Your task to perform on an android device: turn off sleep mode Image 0: 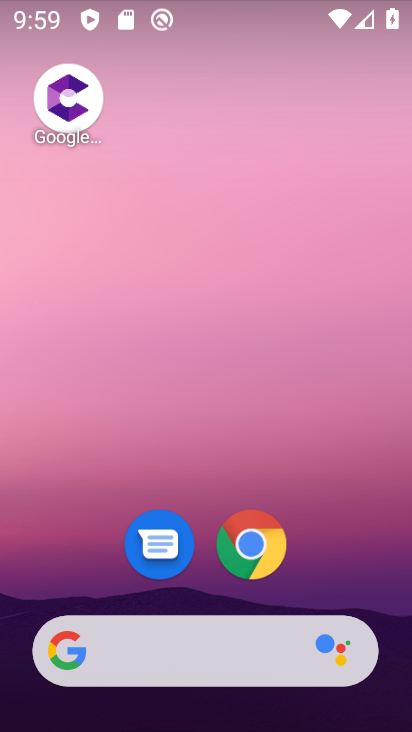
Step 0: press home button
Your task to perform on an android device: turn off sleep mode Image 1: 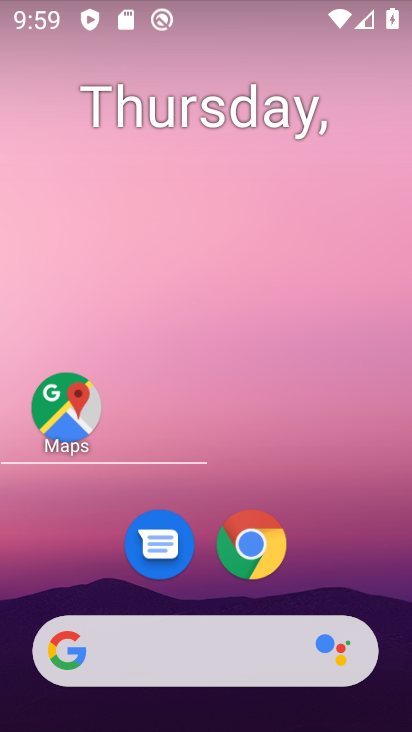
Step 1: drag from (213, 592) to (260, 109)
Your task to perform on an android device: turn off sleep mode Image 2: 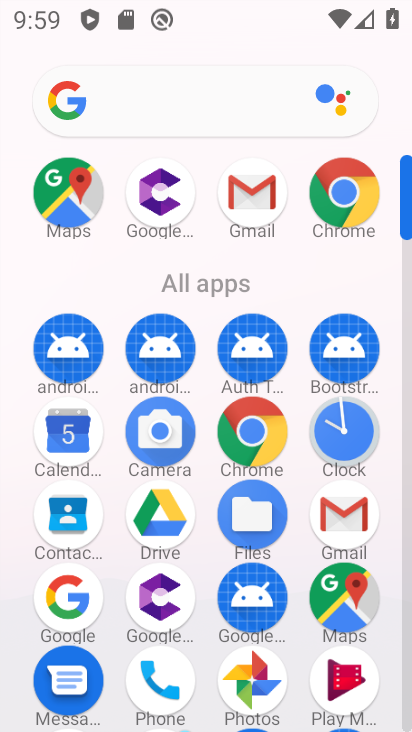
Step 2: drag from (205, 575) to (203, 156)
Your task to perform on an android device: turn off sleep mode Image 3: 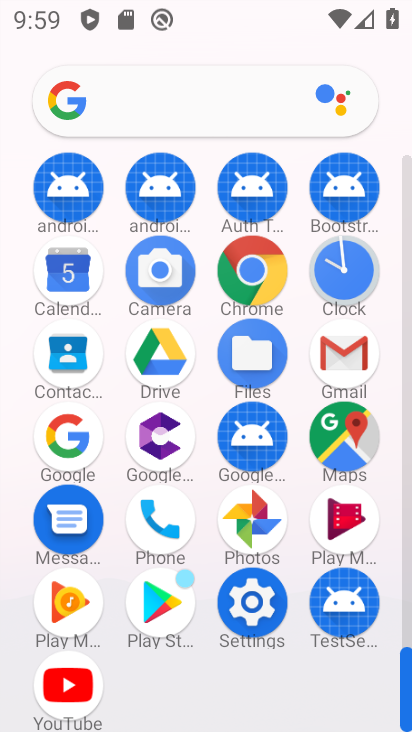
Step 3: click (249, 591)
Your task to perform on an android device: turn off sleep mode Image 4: 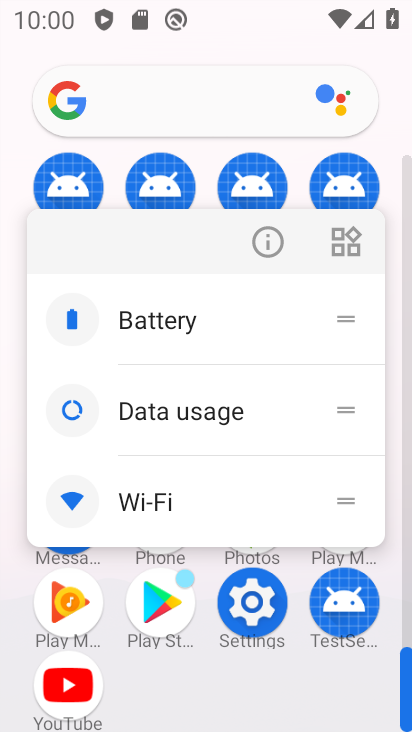
Step 4: click (226, 610)
Your task to perform on an android device: turn off sleep mode Image 5: 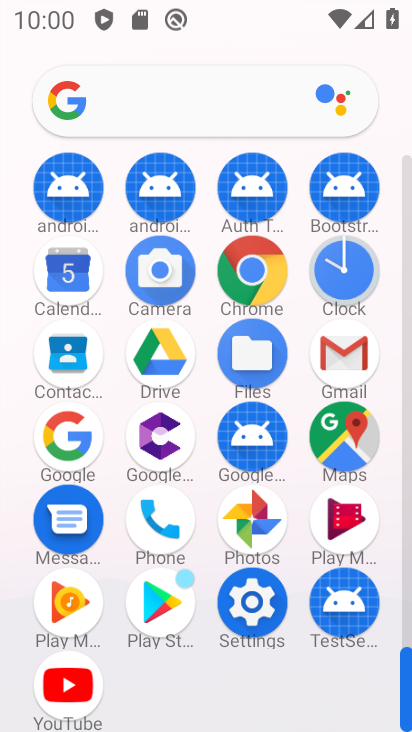
Step 5: click (256, 599)
Your task to perform on an android device: turn off sleep mode Image 6: 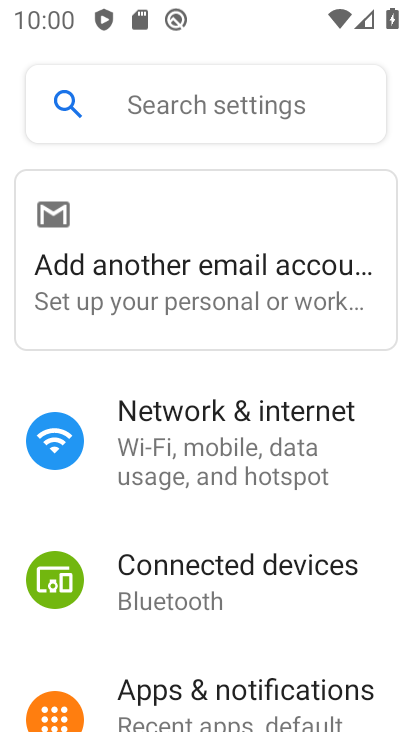
Step 6: drag from (187, 650) to (226, 163)
Your task to perform on an android device: turn off sleep mode Image 7: 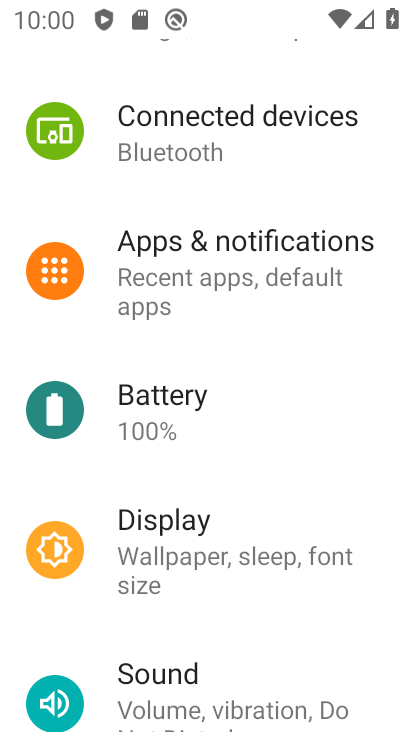
Step 7: click (169, 551)
Your task to perform on an android device: turn off sleep mode Image 8: 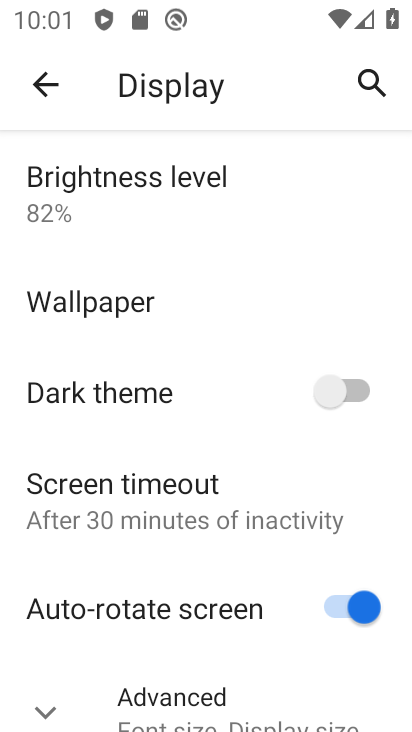
Step 8: task complete